Your task to perform on an android device: Search for flights from Buenos aires to Helsinki Image 0: 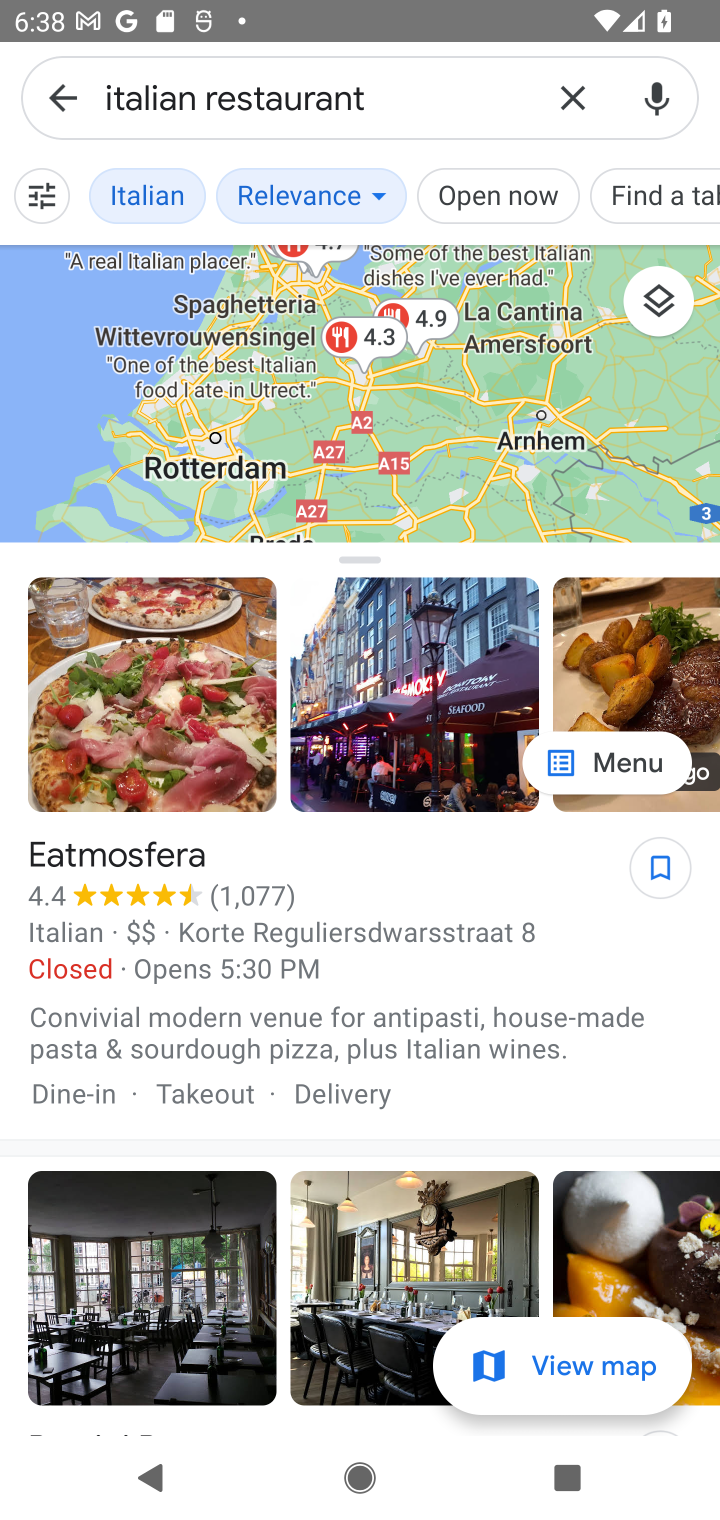
Step 0: press home button
Your task to perform on an android device: Search for flights from Buenos aires to Helsinki Image 1: 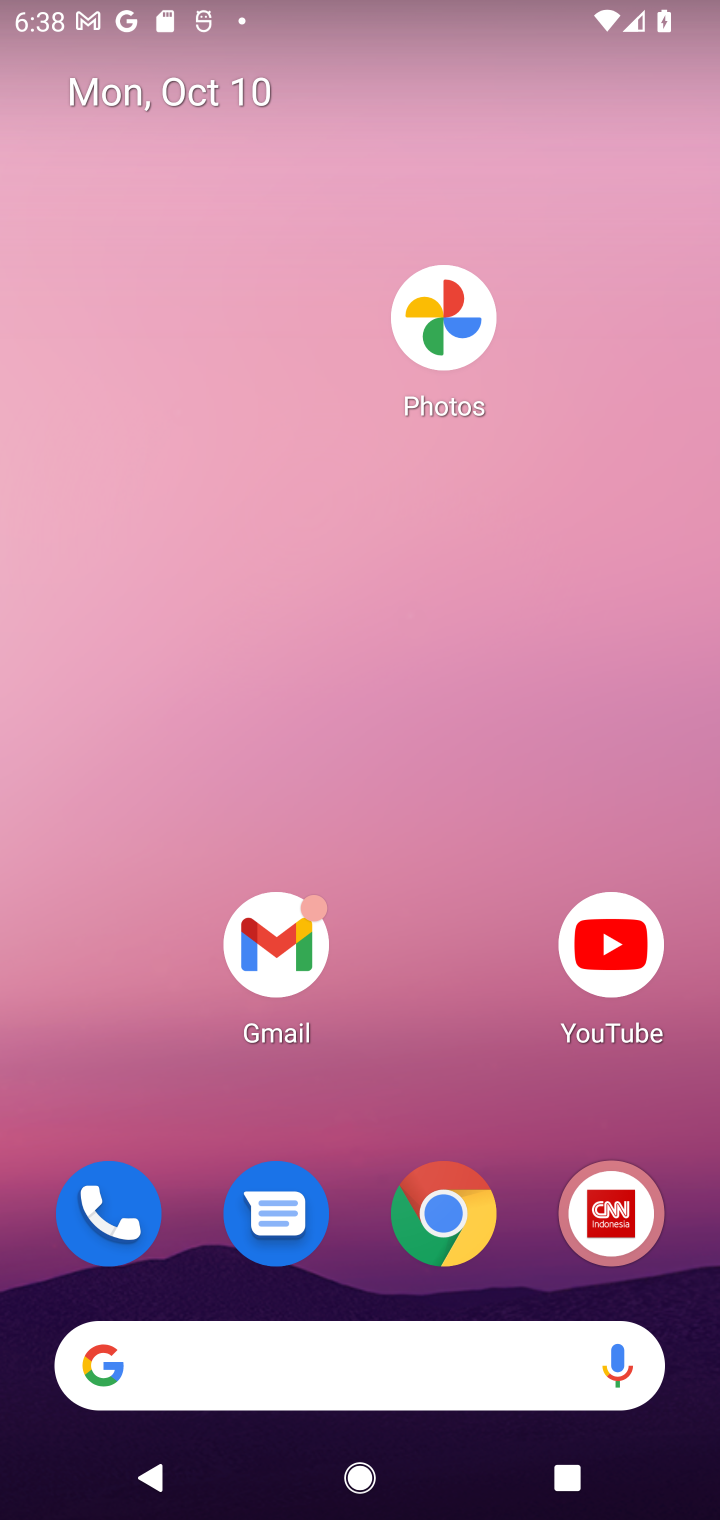
Step 1: click (386, 1361)
Your task to perform on an android device: Search for flights from Buenos aires to Helsinki Image 2: 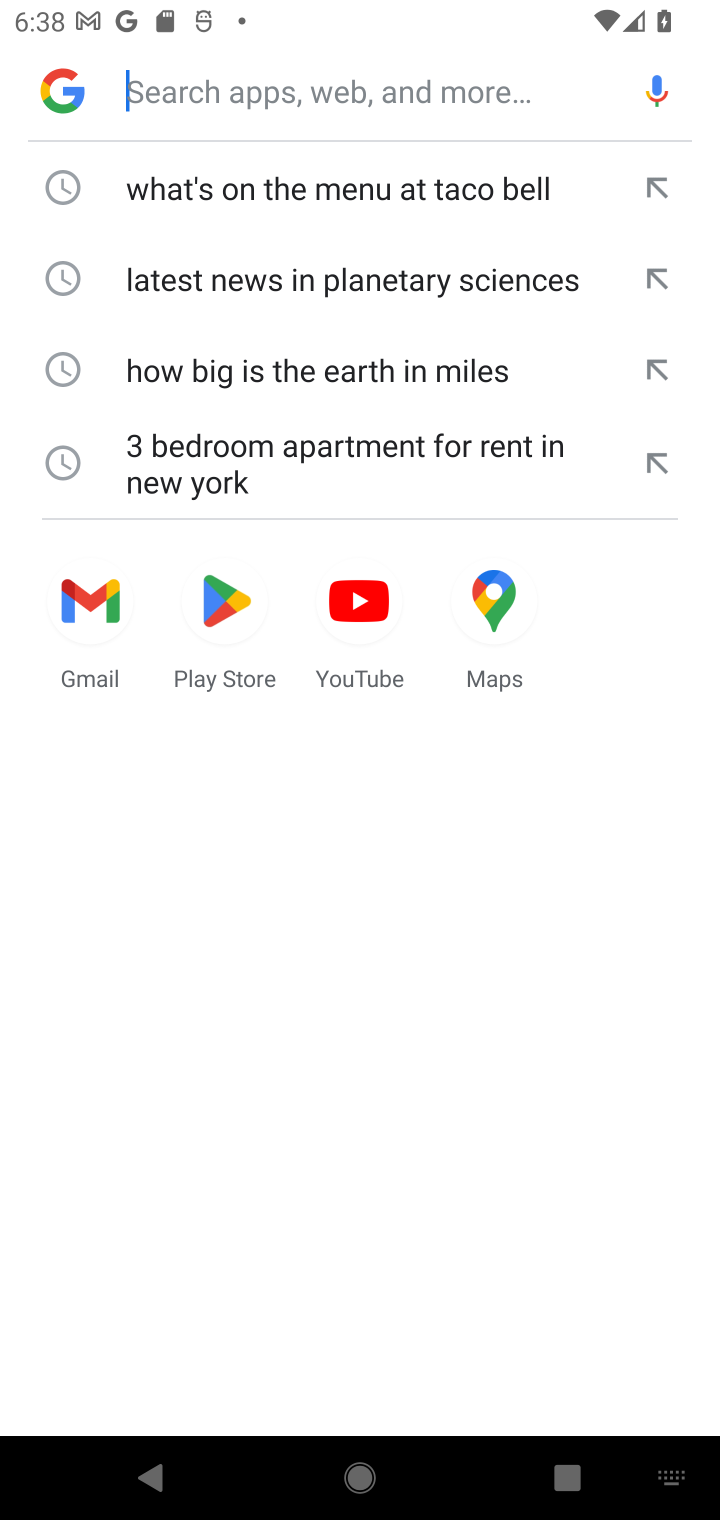
Step 2: type "flights from Buenos aires to Helsinki"
Your task to perform on an android device: Search for flights from Buenos aires to Helsinki Image 3: 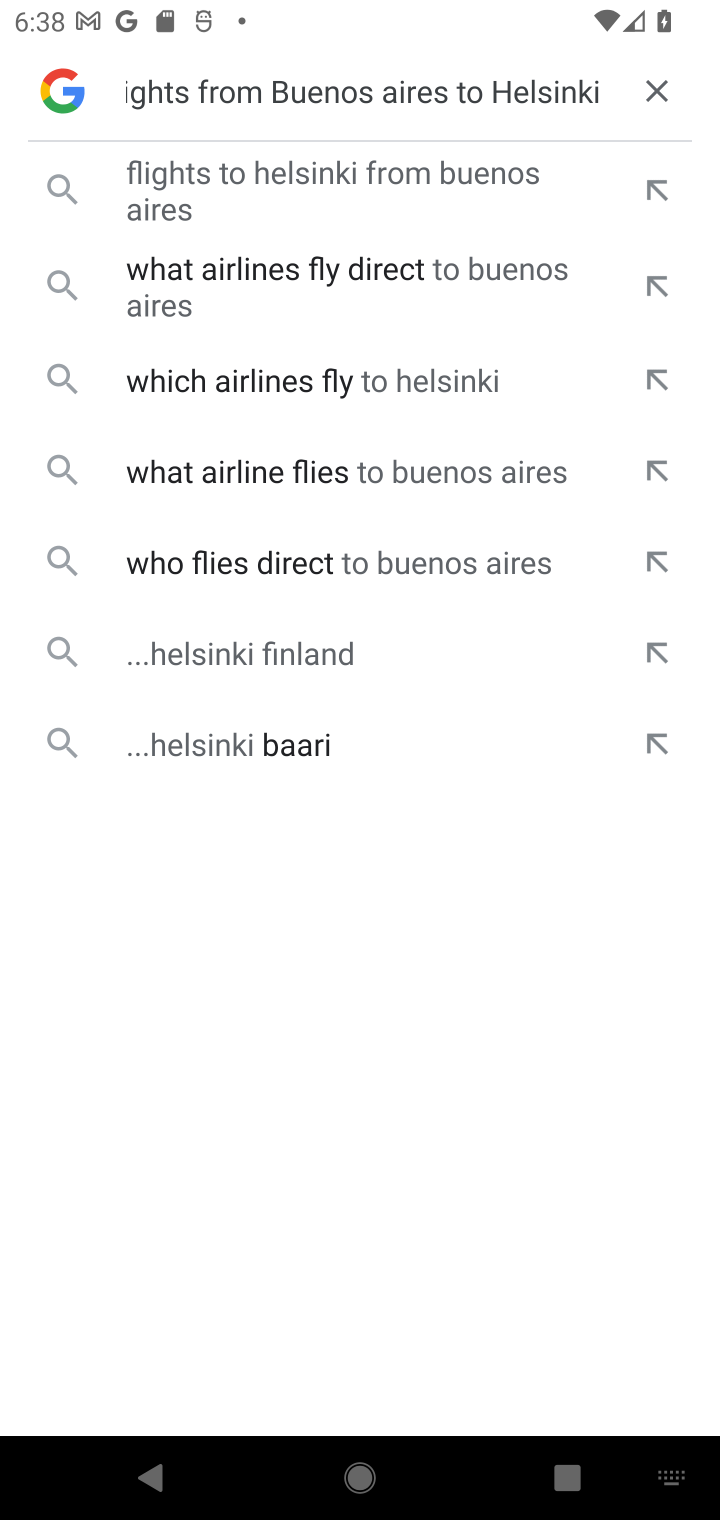
Step 3: click (287, 677)
Your task to perform on an android device: Search for flights from Buenos aires to Helsinki Image 4: 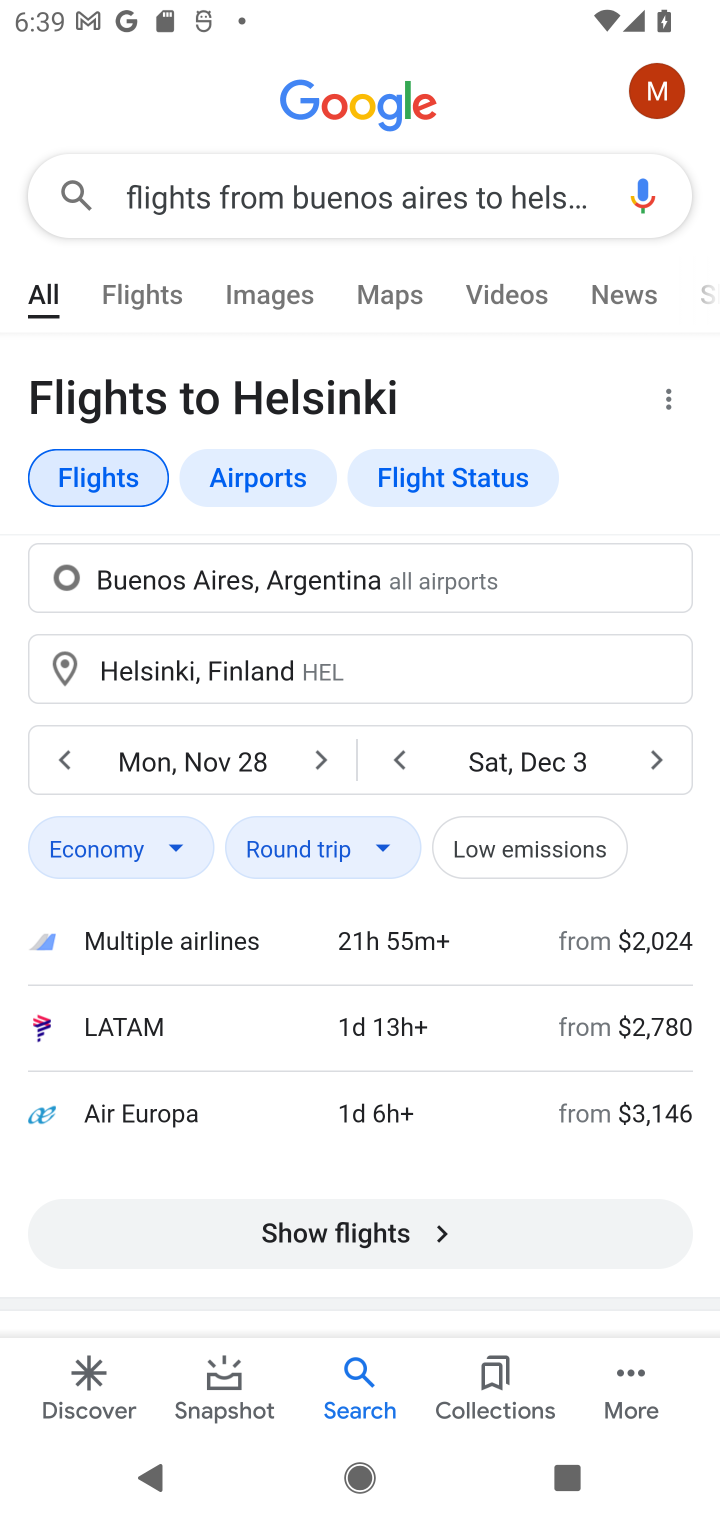
Step 4: task complete